Your task to perform on an android device: Open accessibility settings Image 0: 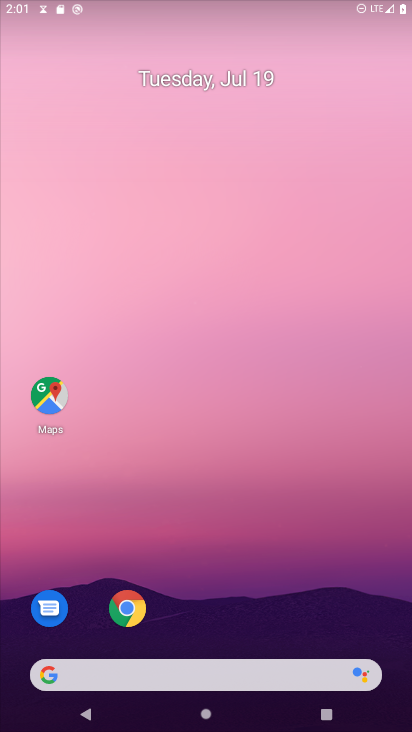
Step 0: drag from (268, 682) to (236, 1)
Your task to perform on an android device: Open accessibility settings Image 1: 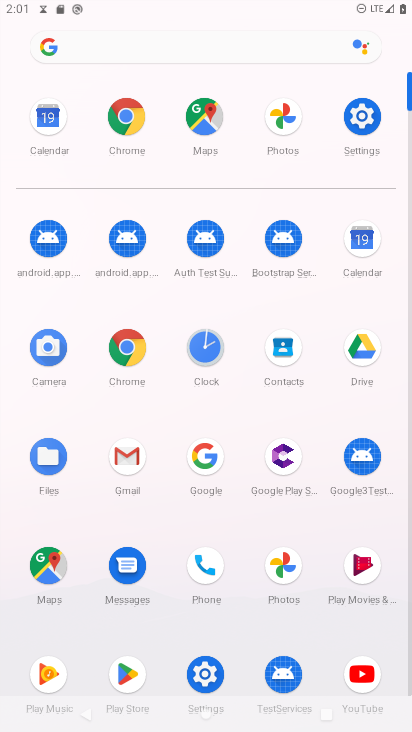
Step 1: click (371, 116)
Your task to perform on an android device: Open accessibility settings Image 2: 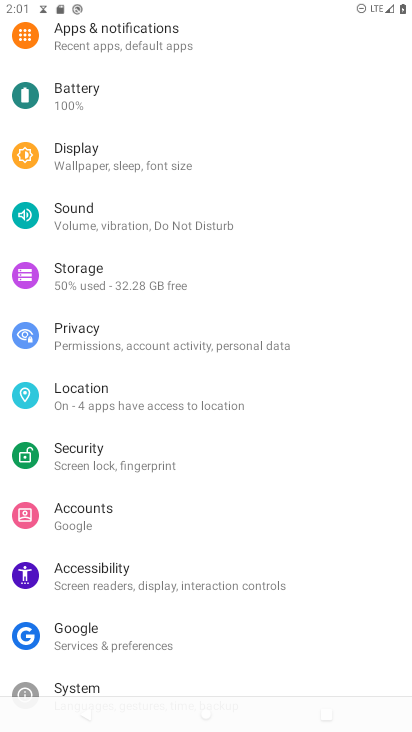
Step 2: click (137, 576)
Your task to perform on an android device: Open accessibility settings Image 3: 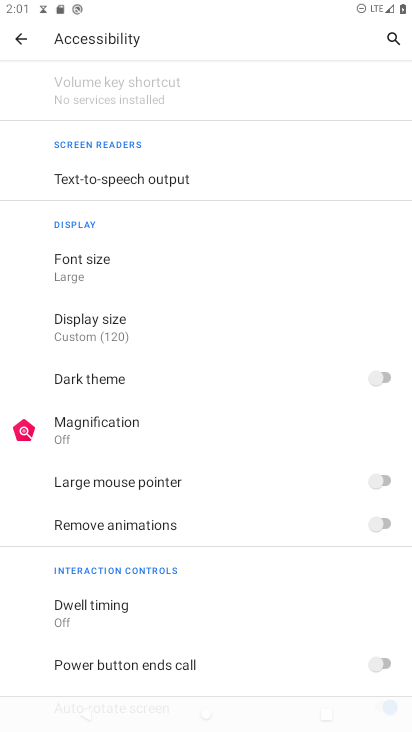
Step 3: task complete